Your task to perform on an android device: change timer sound Image 0: 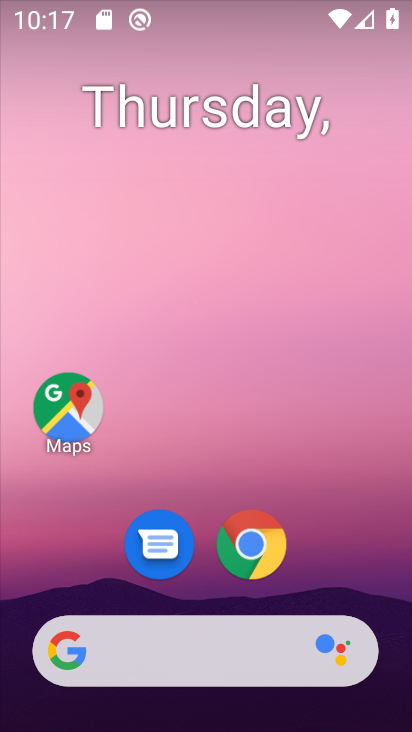
Step 0: drag from (200, 584) to (244, 127)
Your task to perform on an android device: change timer sound Image 1: 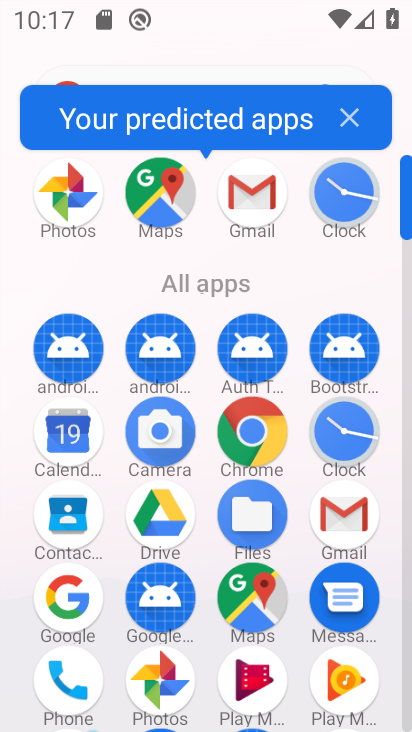
Step 1: drag from (227, 479) to (234, 201)
Your task to perform on an android device: change timer sound Image 2: 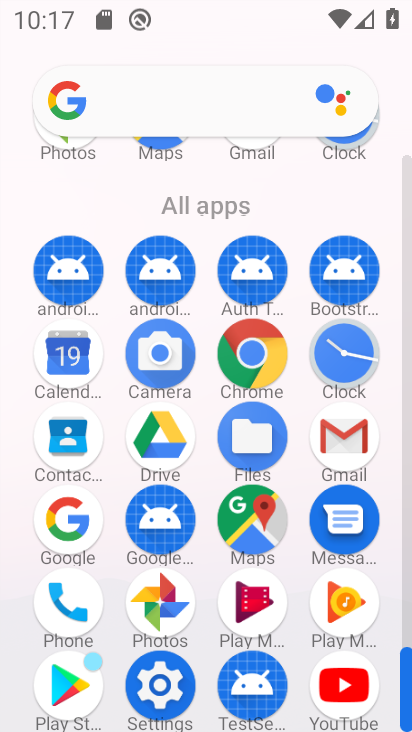
Step 2: click (172, 679)
Your task to perform on an android device: change timer sound Image 3: 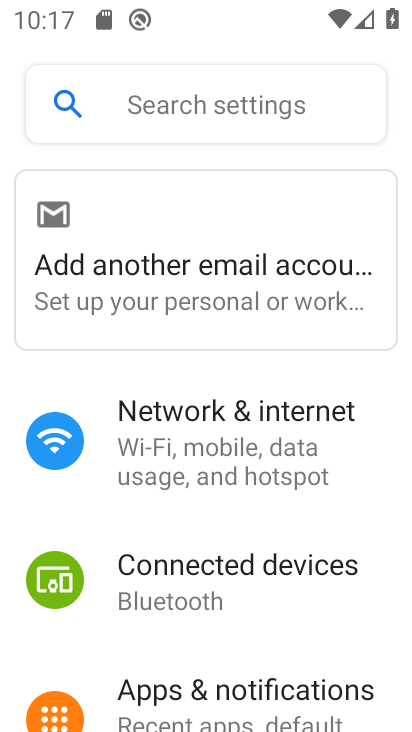
Step 3: press home button
Your task to perform on an android device: change timer sound Image 4: 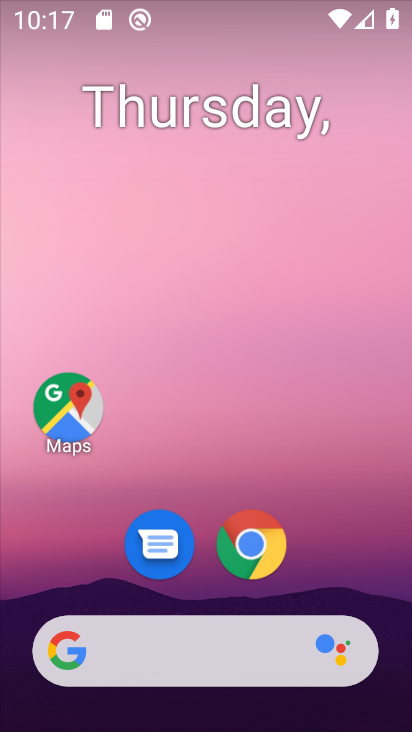
Step 4: drag from (314, 578) to (337, 5)
Your task to perform on an android device: change timer sound Image 5: 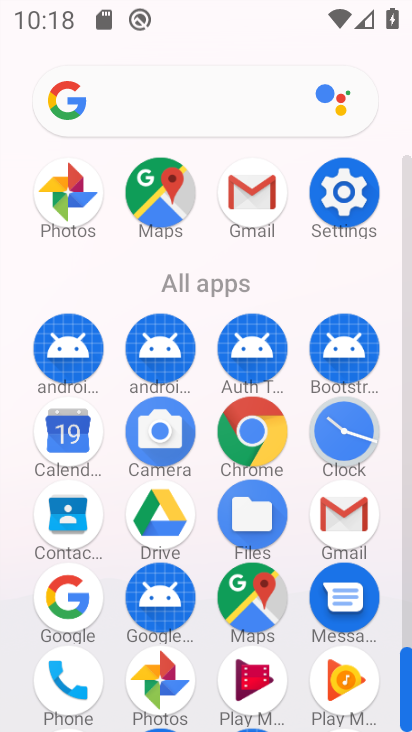
Step 5: click (335, 431)
Your task to perform on an android device: change timer sound Image 6: 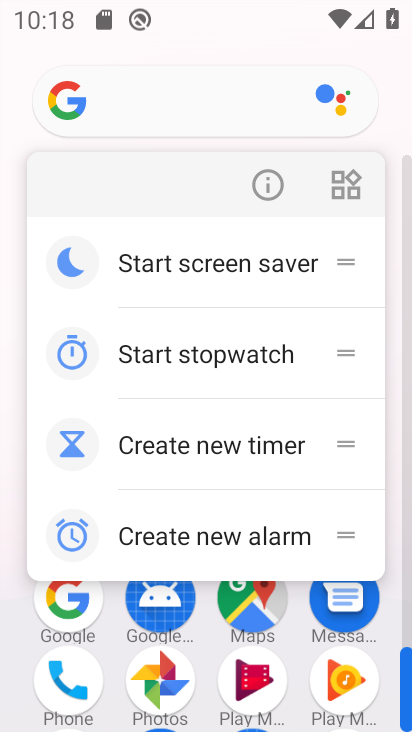
Step 6: drag from (377, 603) to (374, 496)
Your task to perform on an android device: change timer sound Image 7: 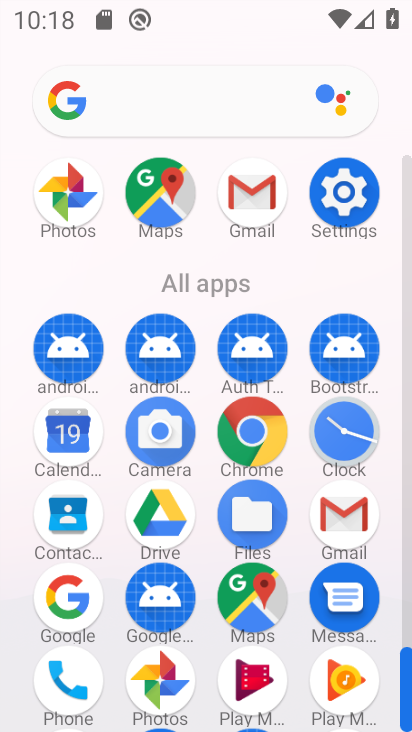
Step 7: click (348, 445)
Your task to perform on an android device: change timer sound Image 8: 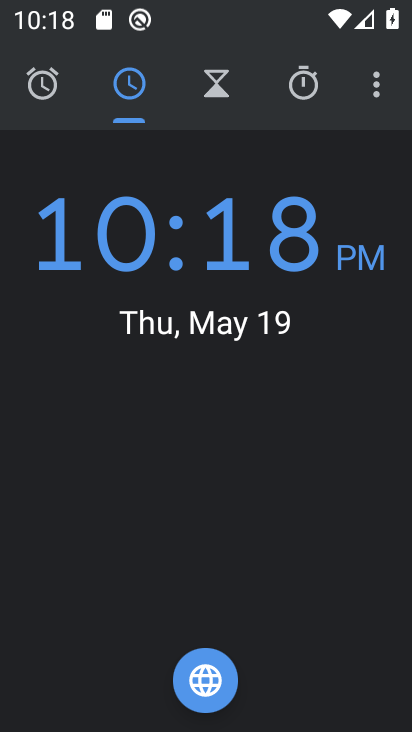
Step 8: click (355, 94)
Your task to perform on an android device: change timer sound Image 9: 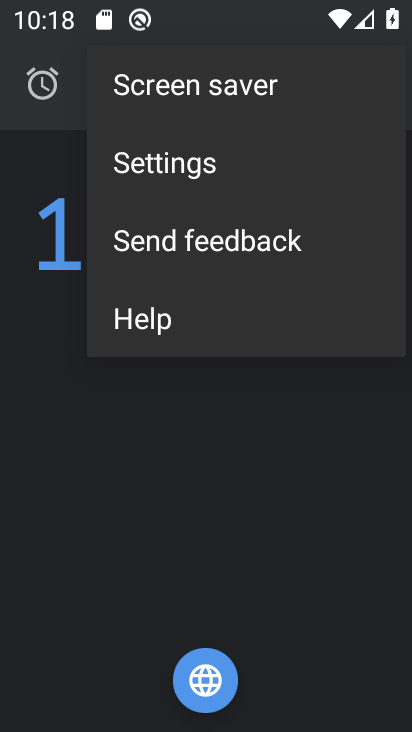
Step 9: click (175, 143)
Your task to perform on an android device: change timer sound Image 10: 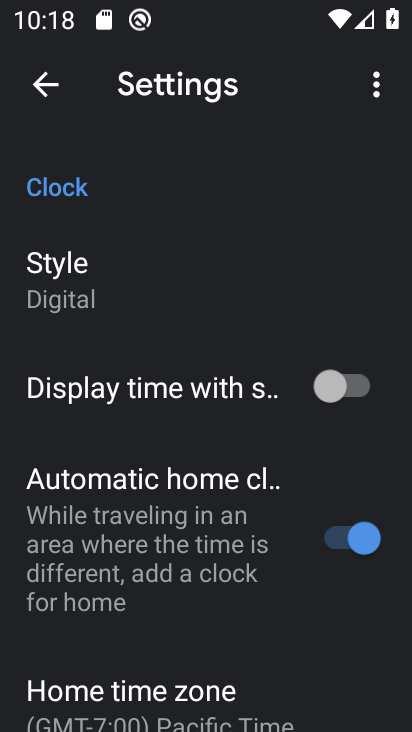
Step 10: drag from (162, 505) to (211, 212)
Your task to perform on an android device: change timer sound Image 11: 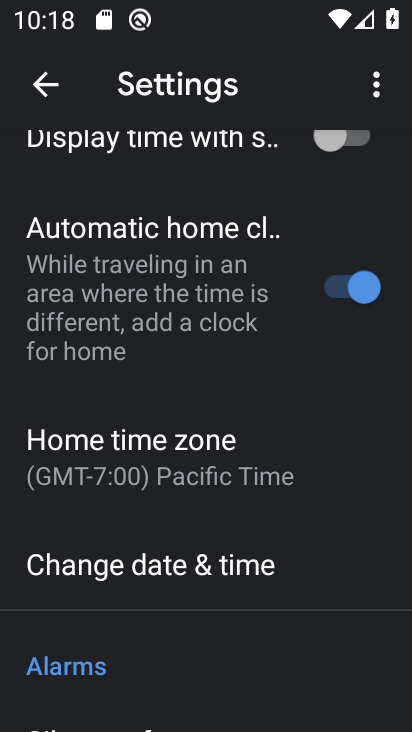
Step 11: drag from (143, 624) to (172, 476)
Your task to perform on an android device: change timer sound Image 12: 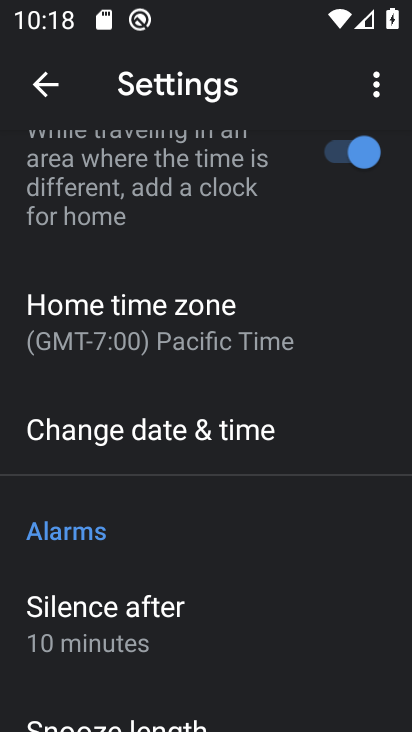
Step 12: drag from (132, 639) to (171, 486)
Your task to perform on an android device: change timer sound Image 13: 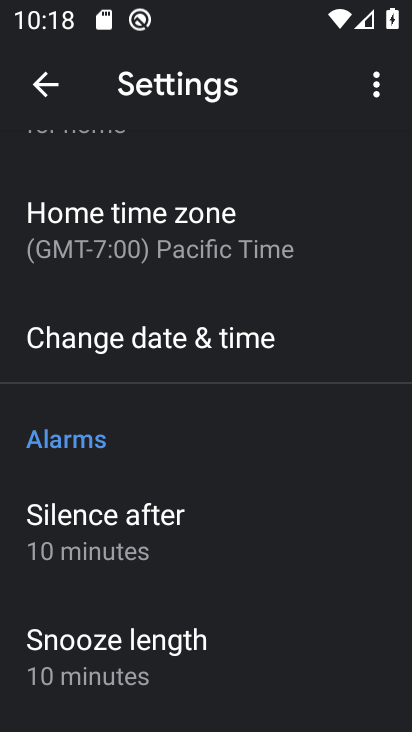
Step 13: drag from (148, 673) to (219, 297)
Your task to perform on an android device: change timer sound Image 14: 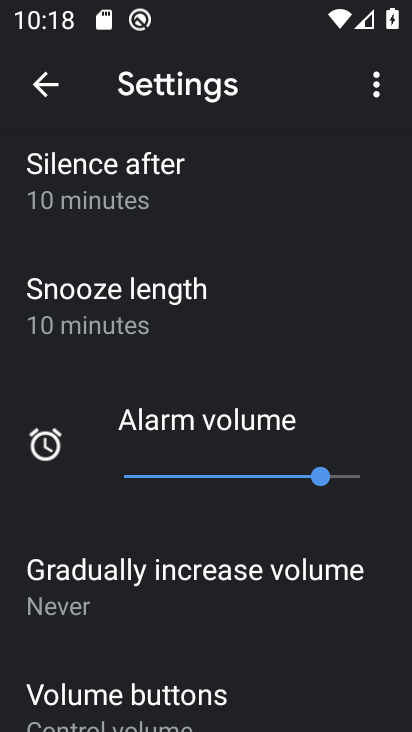
Step 14: drag from (126, 618) to (198, 345)
Your task to perform on an android device: change timer sound Image 15: 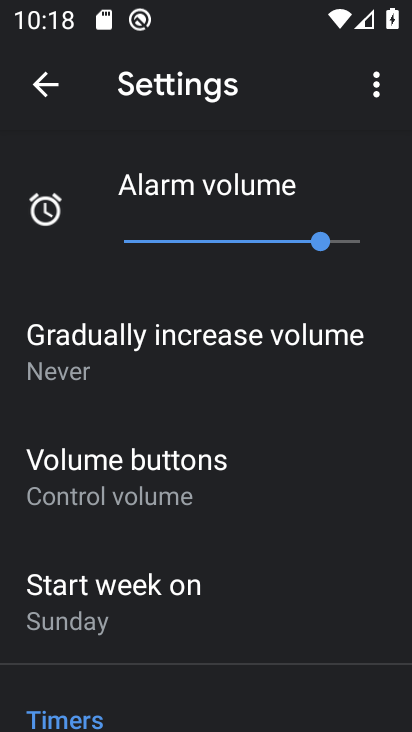
Step 15: drag from (130, 623) to (159, 441)
Your task to perform on an android device: change timer sound Image 16: 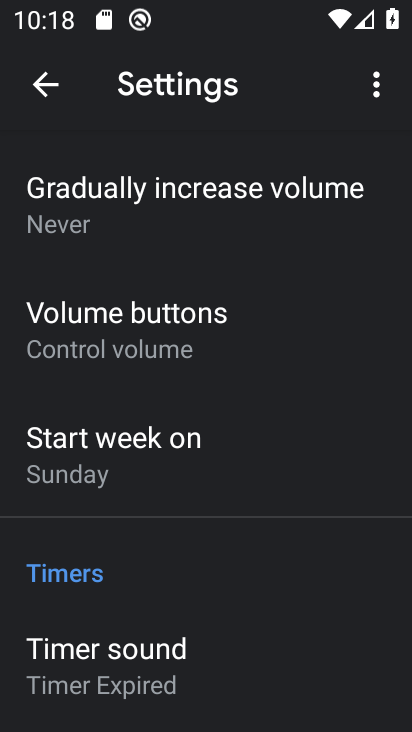
Step 16: click (123, 649)
Your task to perform on an android device: change timer sound Image 17: 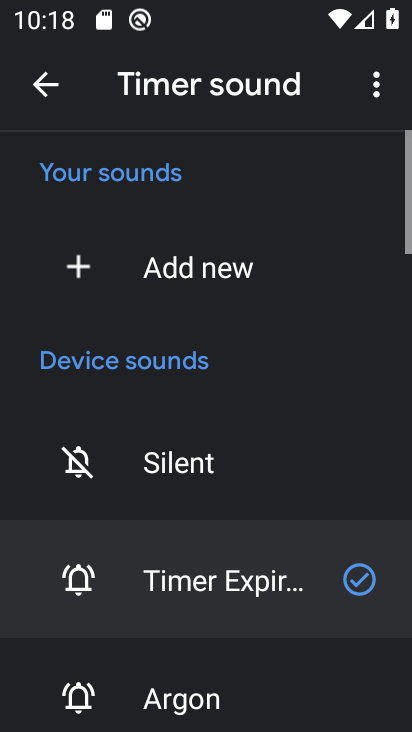
Step 17: drag from (185, 600) to (224, 293)
Your task to perform on an android device: change timer sound Image 18: 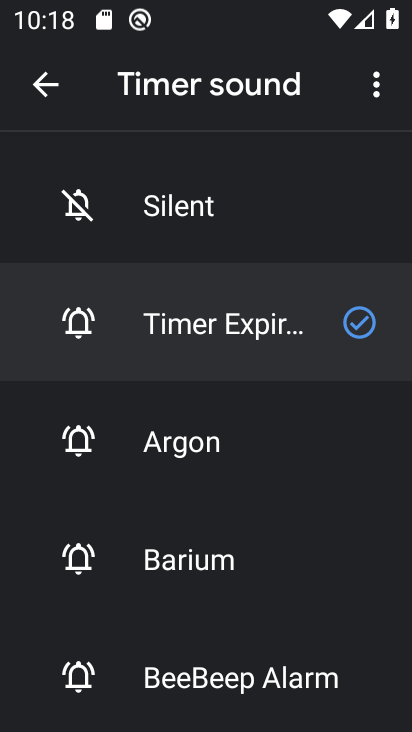
Step 18: click (189, 589)
Your task to perform on an android device: change timer sound Image 19: 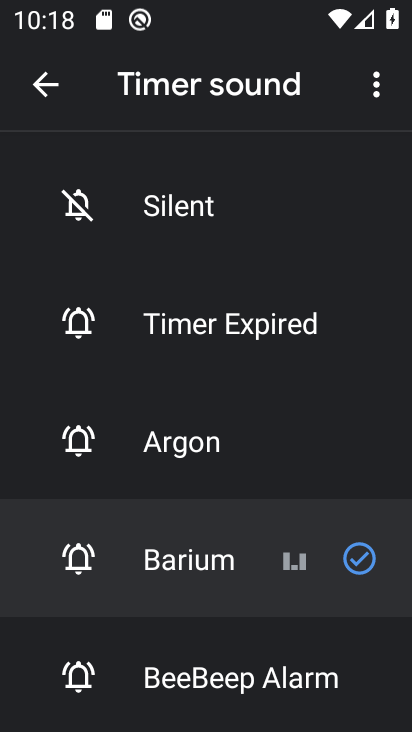
Step 19: task complete